Your task to perform on an android device: toggle sleep mode Image 0: 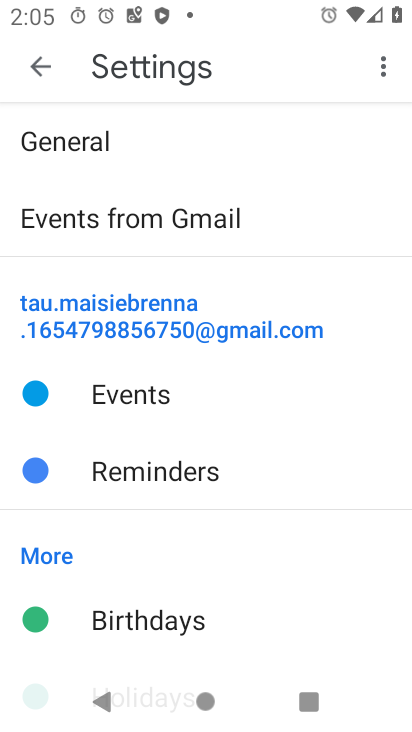
Step 0: press home button
Your task to perform on an android device: toggle sleep mode Image 1: 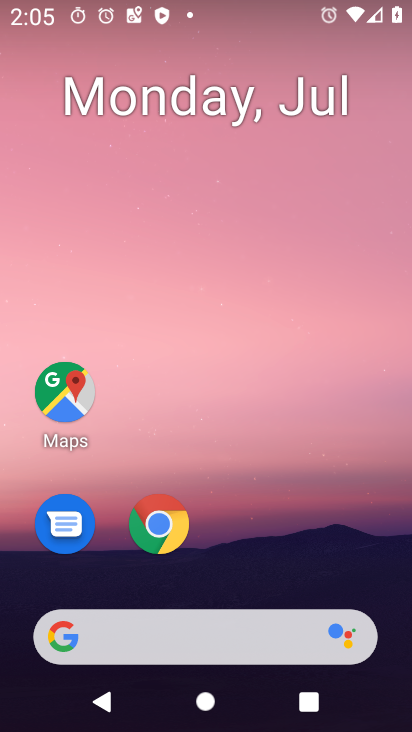
Step 1: drag from (252, 588) to (105, 4)
Your task to perform on an android device: toggle sleep mode Image 2: 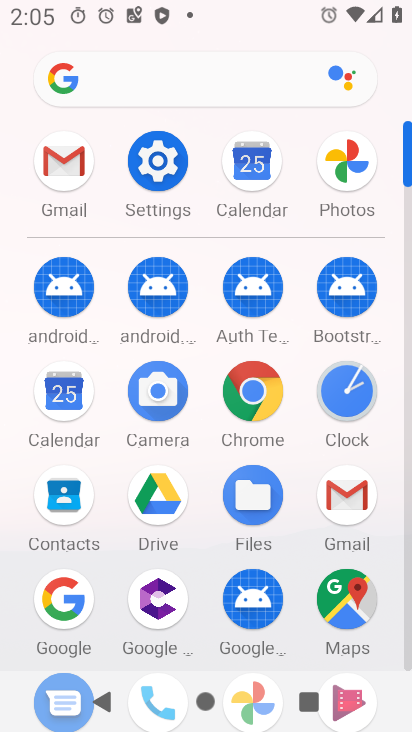
Step 2: click (164, 176)
Your task to perform on an android device: toggle sleep mode Image 3: 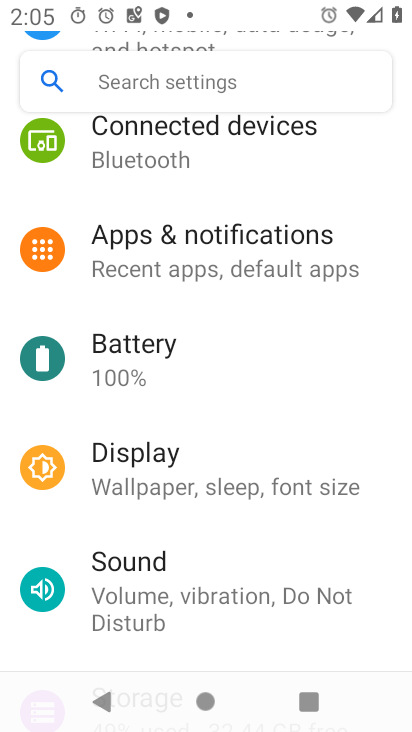
Step 3: click (130, 470)
Your task to perform on an android device: toggle sleep mode Image 4: 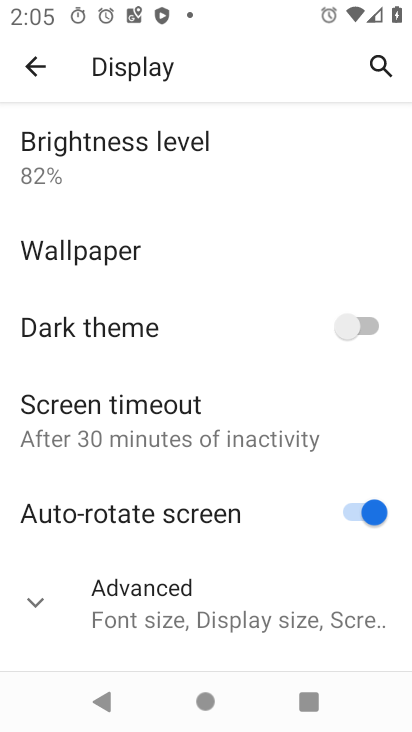
Step 4: task complete